Your task to perform on an android device: Open Maps and search for coffee Image 0: 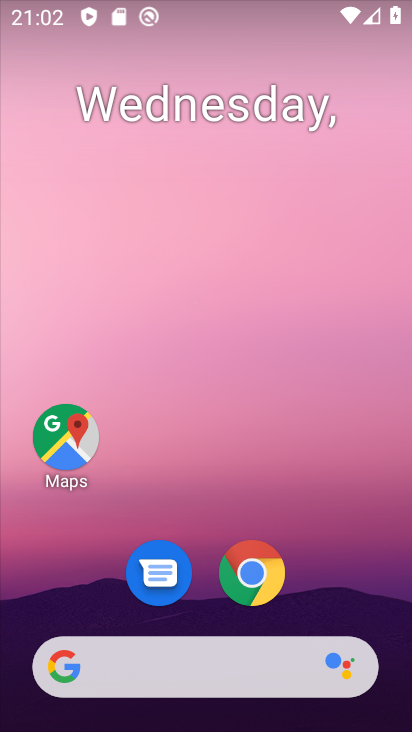
Step 0: click (68, 432)
Your task to perform on an android device: Open Maps and search for coffee Image 1: 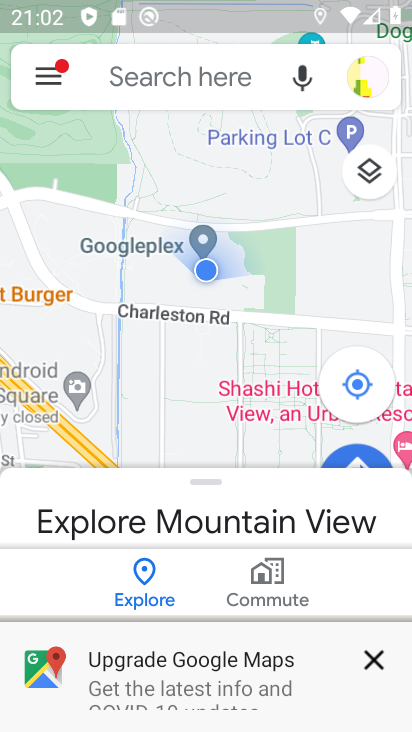
Step 1: click (167, 79)
Your task to perform on an android device: Open Maps and search for coffee Image 2: 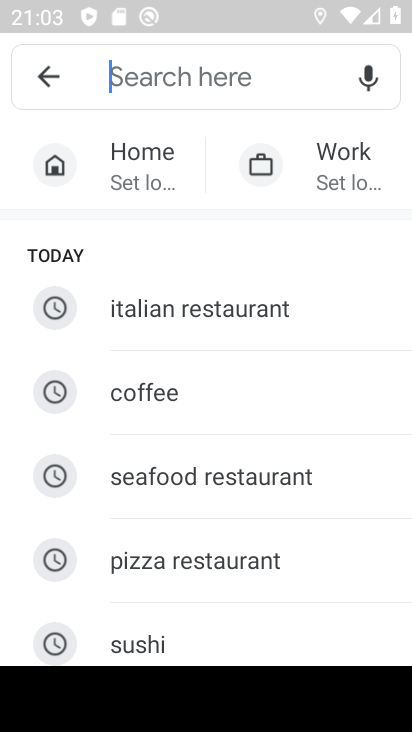
Step 2: type "coffee"
Your task to perform on an android device: Open Maps and search for coffee Image 3: 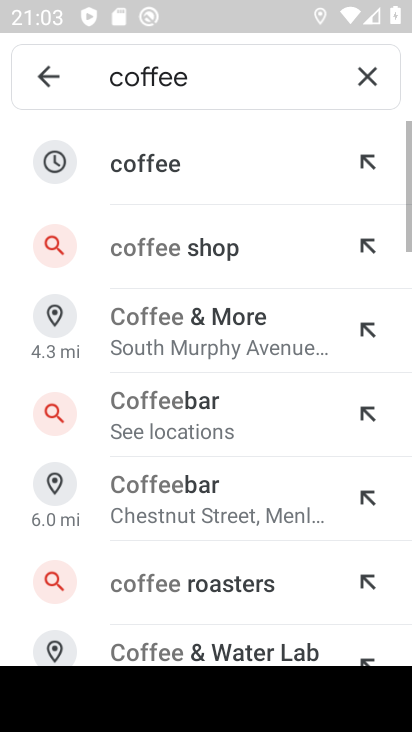
Step 3: click (154, 164)
Your task to perform on an android device: Open Maps and search for coffee Image 4: 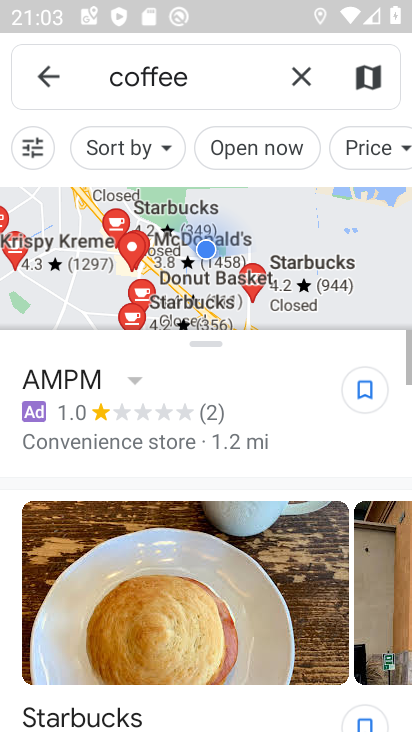
Step 4: task complete